Your task to perform on an android device: set an alarm Image 0: 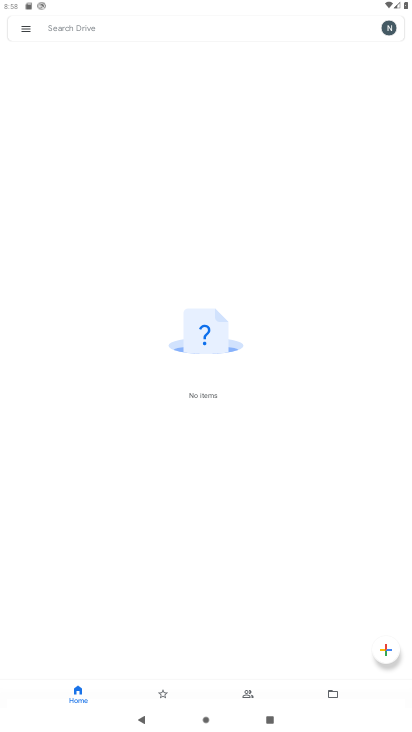
Step 0: press home button
Your task to perform on an android device: set an alarm Image 1: 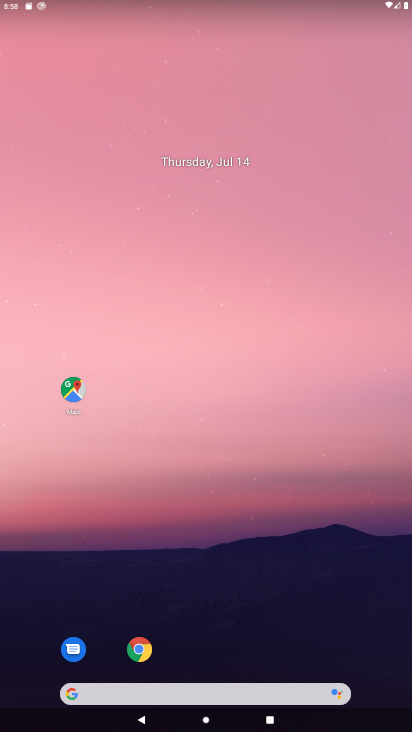
Step 1: drag from (268, 619) to (235, 2)
Your task to perform on an android device: set an alarm Image 2: 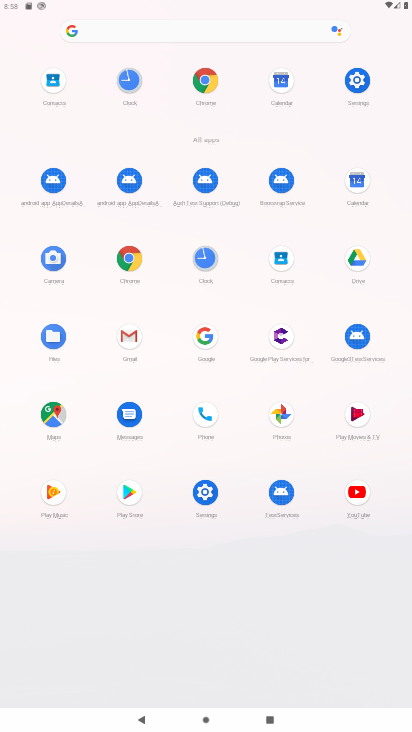
Step 2: click (208, 259)
Your task to perform on an android device: set an alarm Image 3: 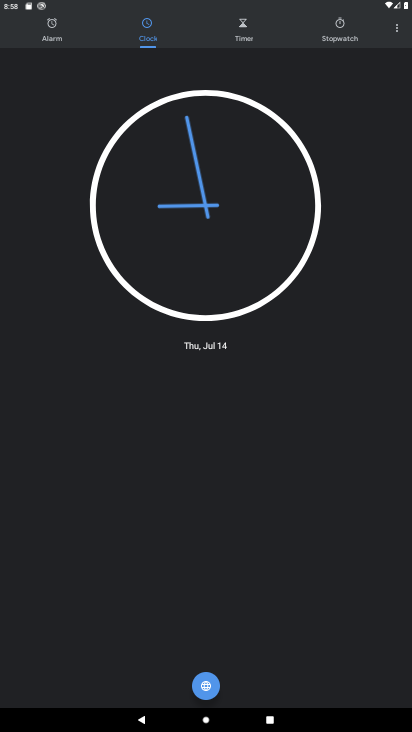
Step 3: click (44, 24)
Your task to perform on an android device: set an alarm Image 4: 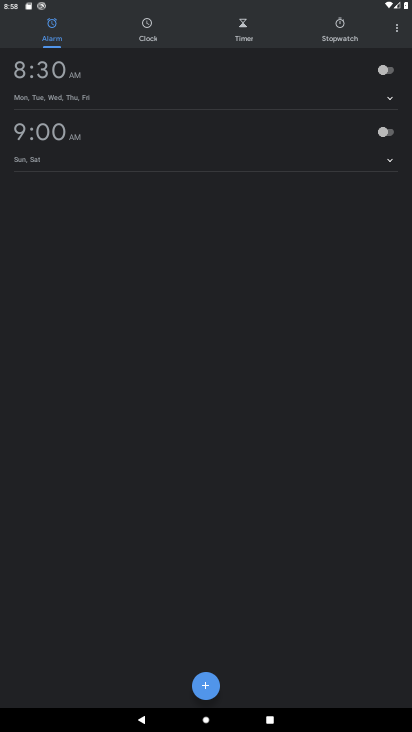
Step 4: click (388, 163)
Your task to perform on an android device: set an alarm Image 5: 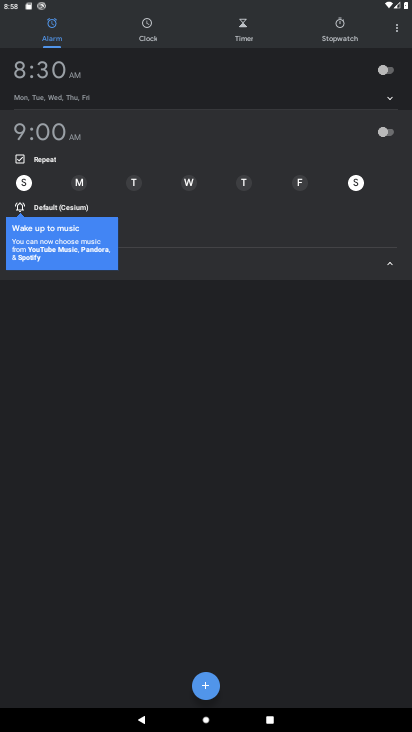
Step 5: click (392, 131)
Your task to perform on an android device: set an alarm Image 6: 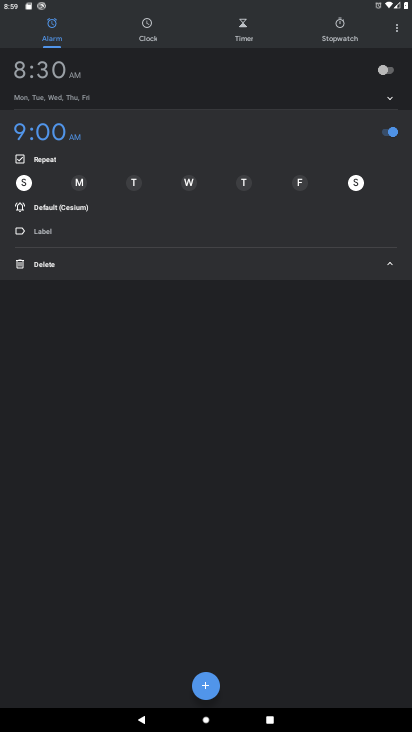
Step 6: task complete